Your task to perform on an android device: Go to display settings Image 0: 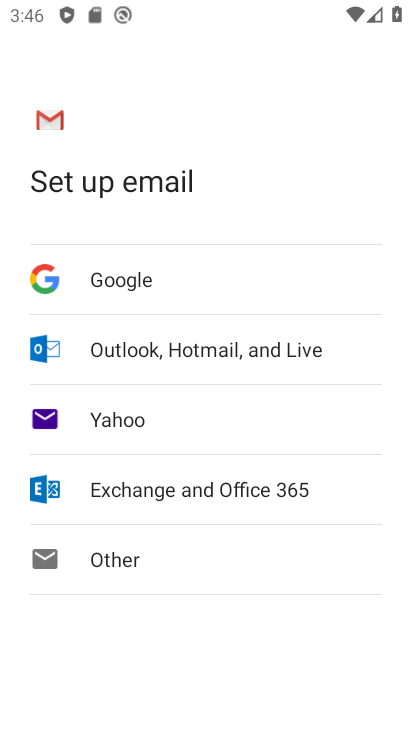
Step 0: press home button
Your task to perform on an android device: Go to display settings Image 1: 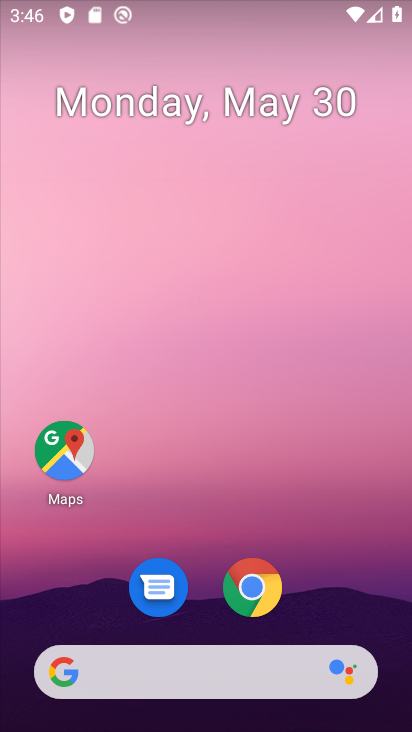
Step 1: drag from (317, 598) to (315, 21)
Your task to perform on an android device: Go to display settings Image 2: 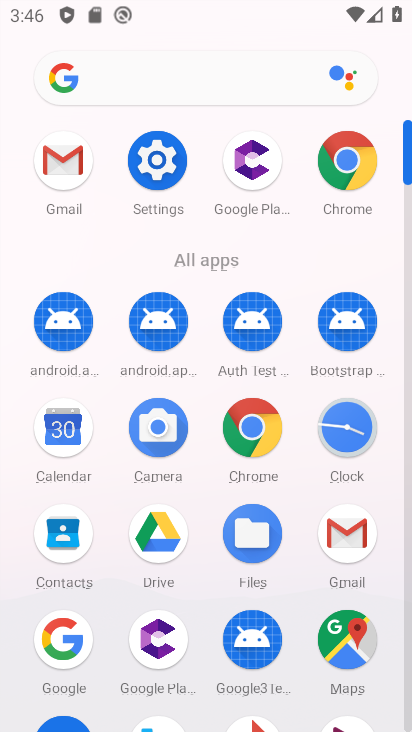
Step 2: click (187, 158)
Your task to perform on an android device: Go to display settings Image 3: 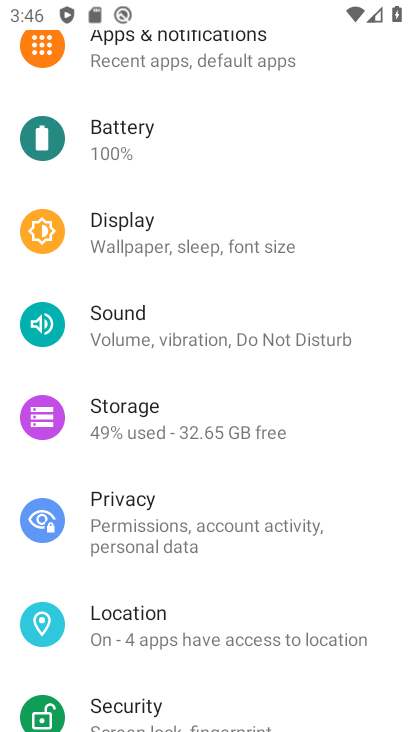
Step 3: click (172, 228)
Your task to perform on an android device: Go to display settings Image 4: 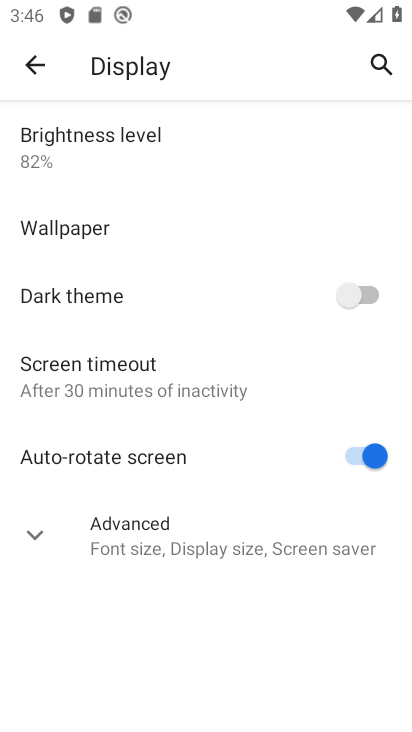
Step 4: task complete